Your task to perform on an android device: Open calendar and show me the fourth week of next month Image 0: 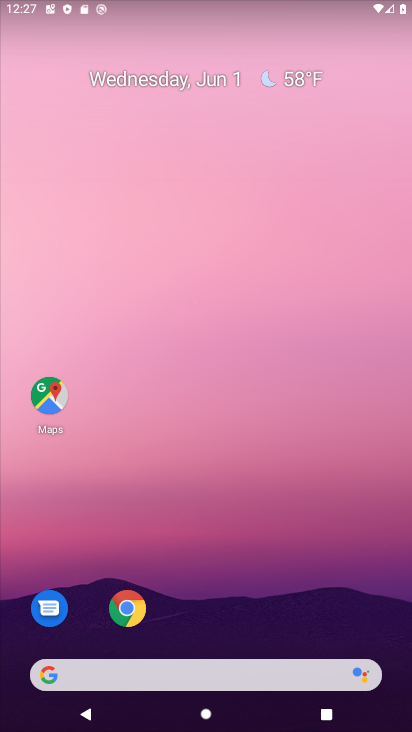
Step 0: drag from (202, 616) to (249, 19)
Your task to perform on an android device: Open calendar and show me the fourth week of next month Image 1: 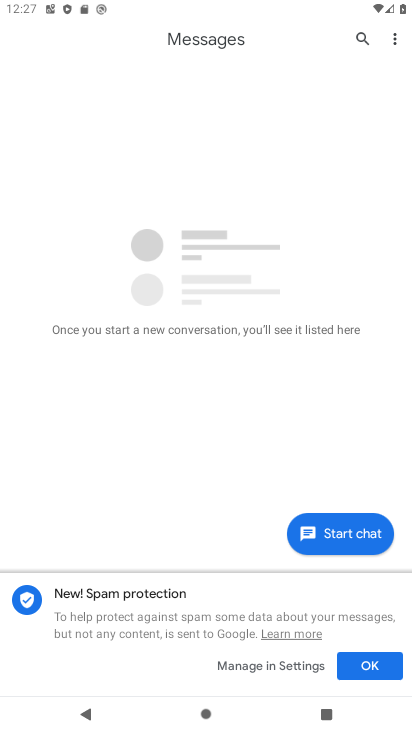
Step 1: press home button
Your task to perform on an android device: Open calendar and show me the fourth week of next month Image 2: 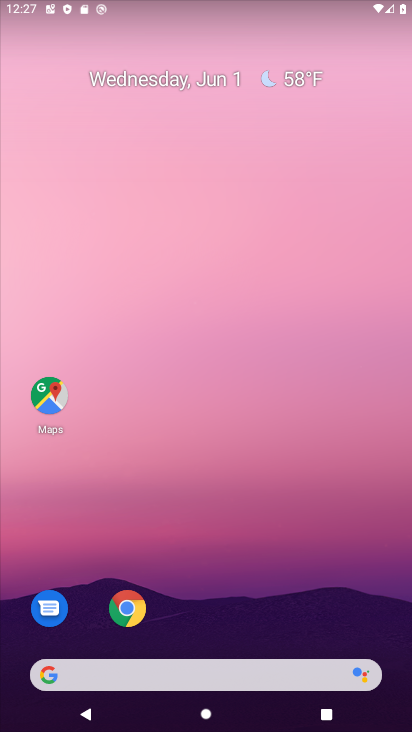
Step 2: drag from (273, 629) to (342, 46)
Your task to perform on an android device: Open calendar and show me the fourth week of next month Image 3: 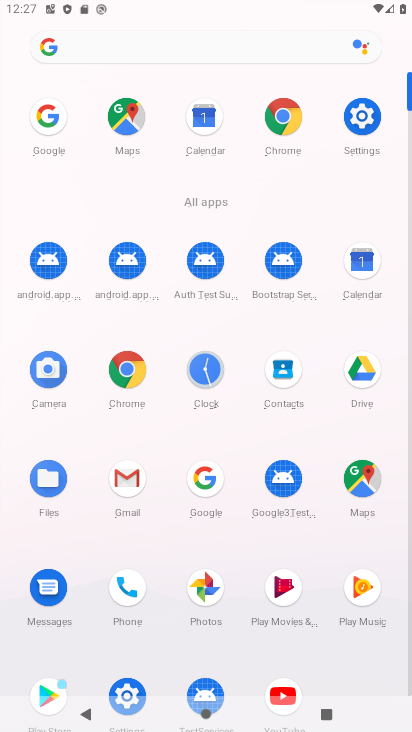
Step 3: click (359, 265)
Your task to perform on an android device: Open calendar and show me the fourth week of next month Image 4: 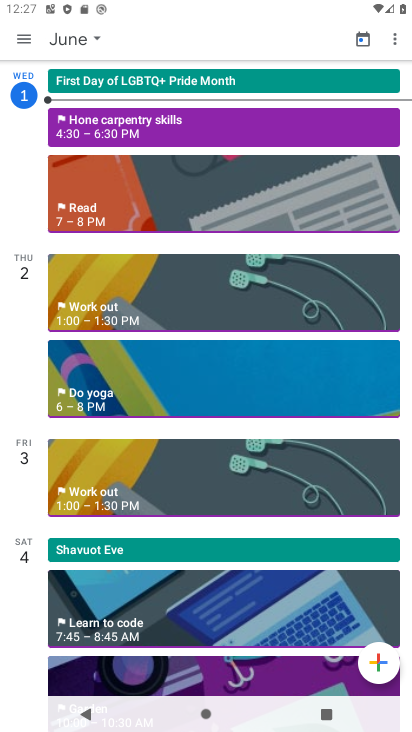
Step 4: click (20, 37)
Your task to perform on an android device: Open calendar and show me the fourth week of next month Image 5: 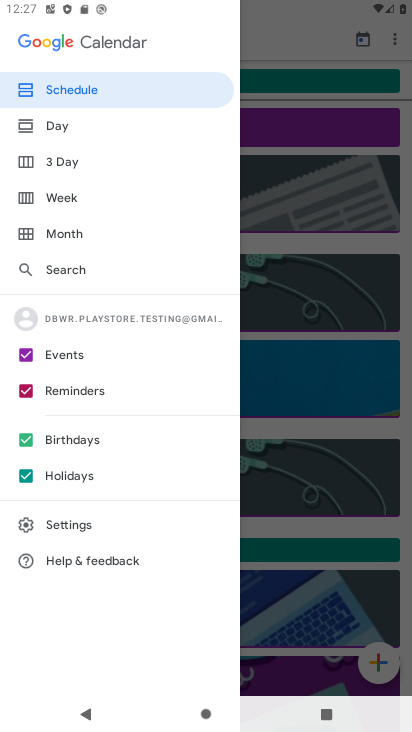
Step 5: click (63, 199)
Your task to perform on an android device: Open calendar and show me the fourth week of next month Image 6: 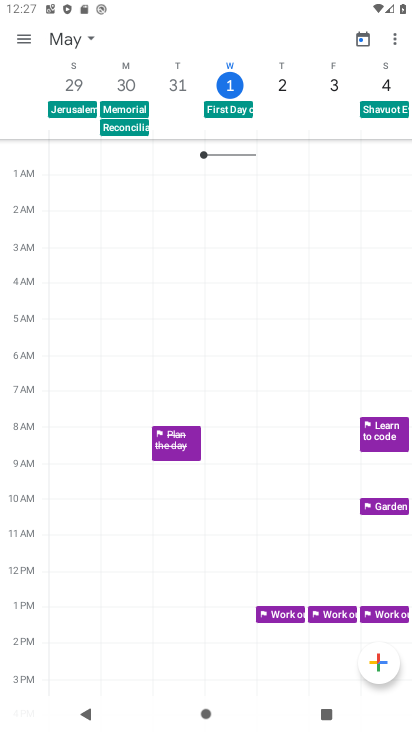
Step 6: click (81, 35)
Your task to perform on an android device: Open calendar and show me the fourth week of next month Image 7: 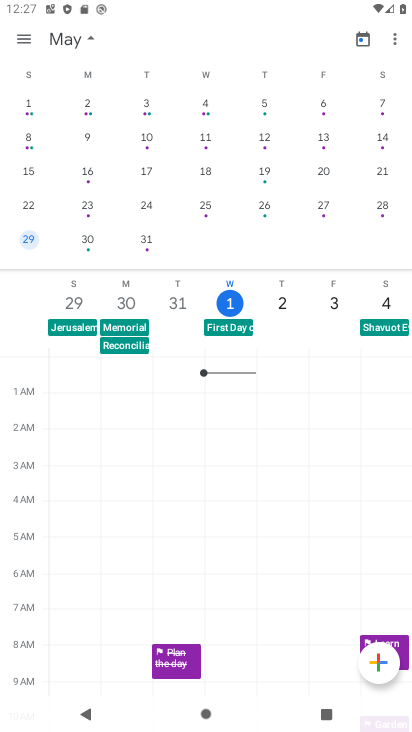
Step 7: drag from (378, 219) to (56, 243)
Your task to perform on an android device: Open calendar and show me the fourth week of next month Image 8: 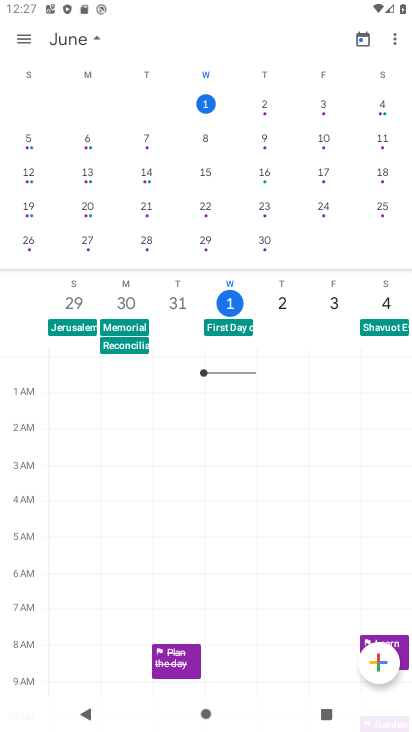
Step 8: click (206, 202)
Your task to perform on an android device: Open calendar and show me the fourth week of next month Image 9: 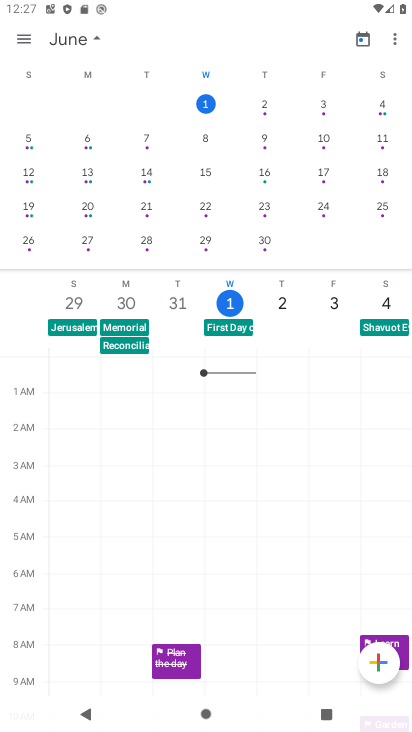
Step 9: click (205, 201)
Your task to perform on an android device: Open calendar and show me the fourth week of next month Image 10: 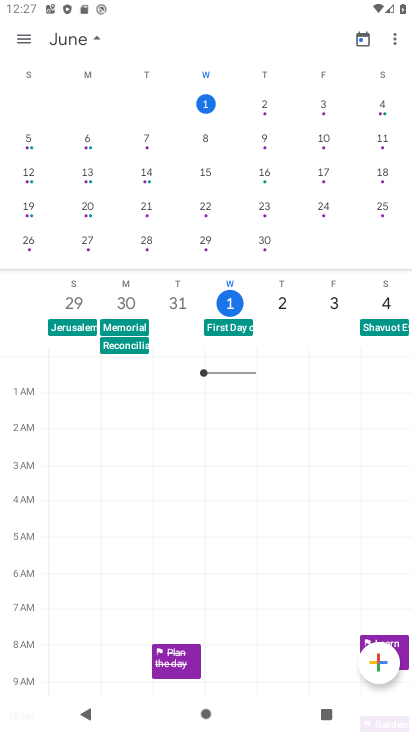
Step 10: click (201, 210)
Your task to perform on an android device: Open calendar and show me the fourth week of next month Image 11: 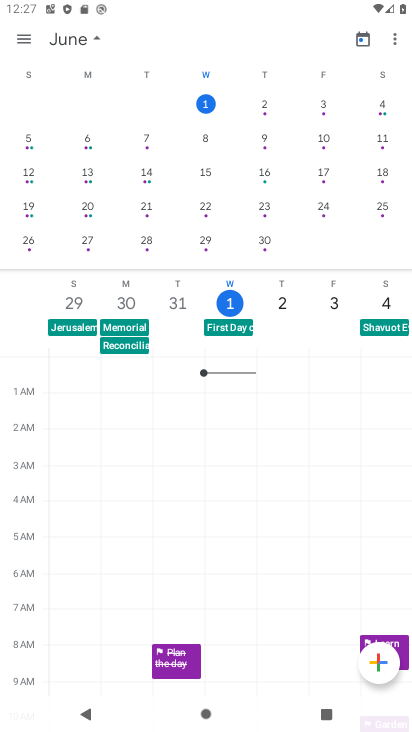
Step 11: click (202, 207)
Your task to perform on an android device: Open calendar and show me the fourth week of next month Image 12: 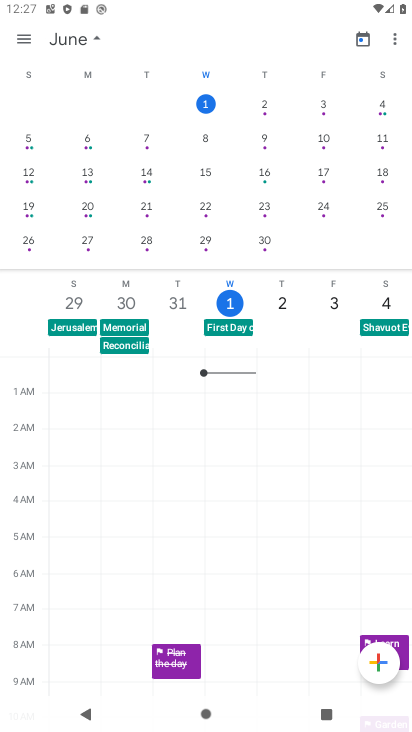
Step 12: click (202, 207)
Your task to perform on an android device: Open calendar and show me the fourth week of next month Image 13: 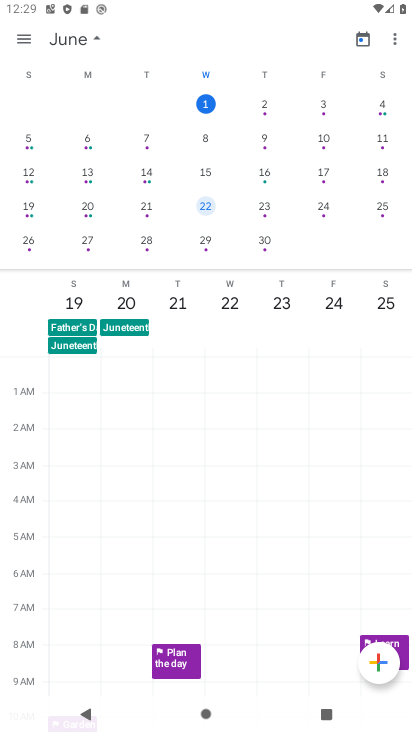
Step 13: task complete